Your task to perform on an android device: clear history in the chrome app Image 0: 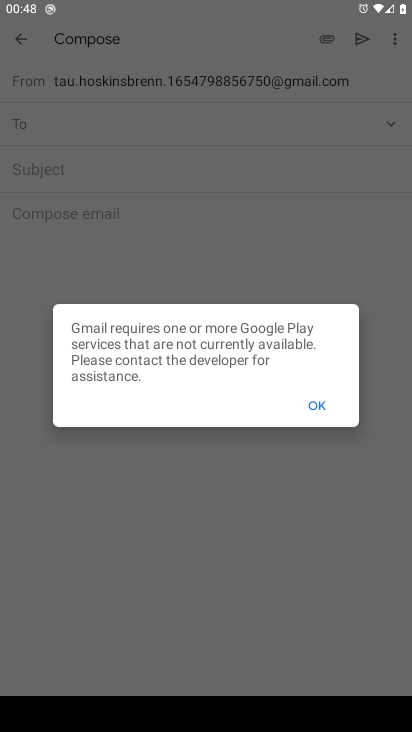
Step 0: press home button
Your task to perform on an android device: clear history in the chrome app Image 1: 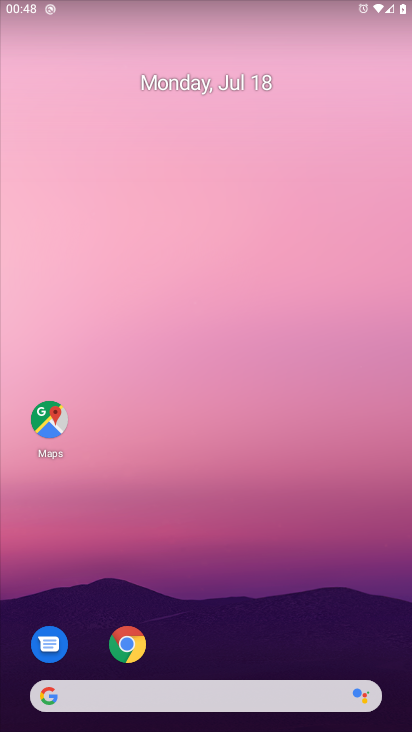
Step 1: click (139, 643)
Your task to perform on an android device: clear history in the chrome app Image 2: 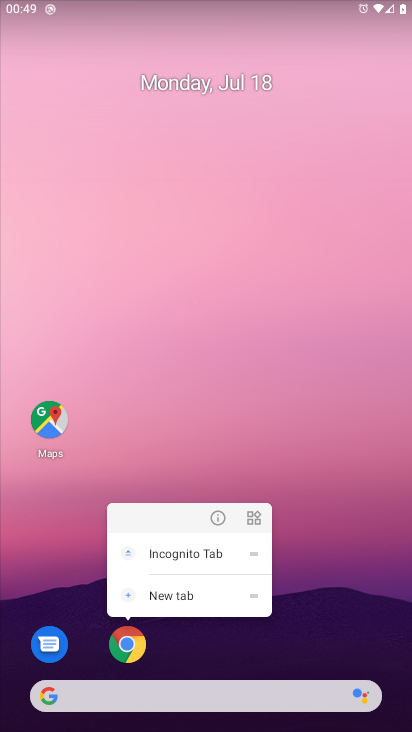
Step 2: click (130, 638)
Your task to perform on an android device: clear history in the chrome app Image 3: 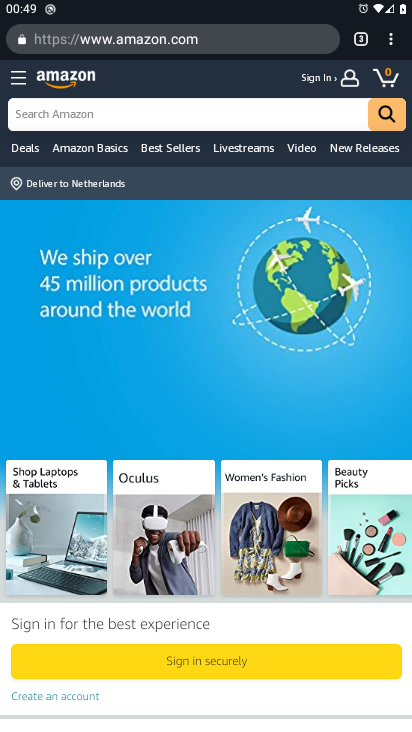
Step 3: drag from (391, 40) to (233, 227)
Your task to perform on an android device: clear history in the chrome app Image 4: 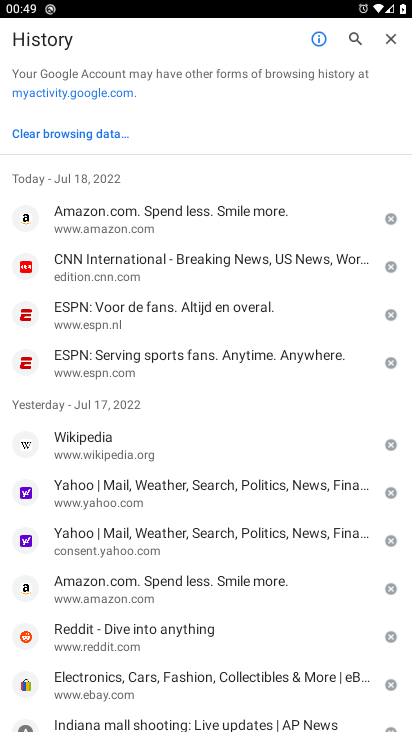
Step 4: click (64, 129)
Your task to perform on an android device: clear history in the chrome app Image 5: 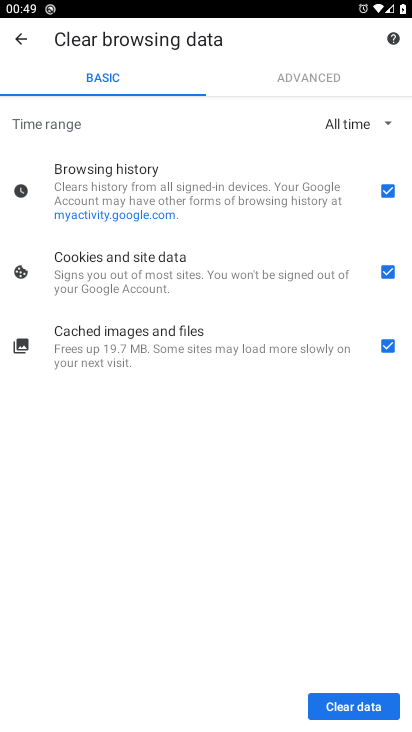
Step 5: click (385, 270)
Your task to perform on an android device: clear history in the chrome app Image 6: 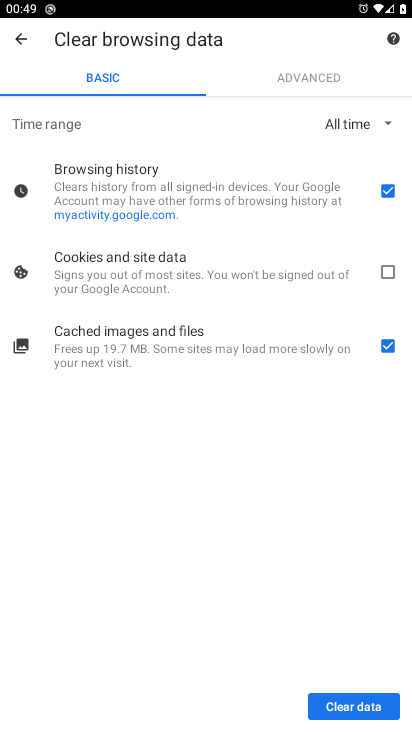
Step 6: click (389, 343)
Your task to perform on an android device: clear history in the chrome app Image 7: 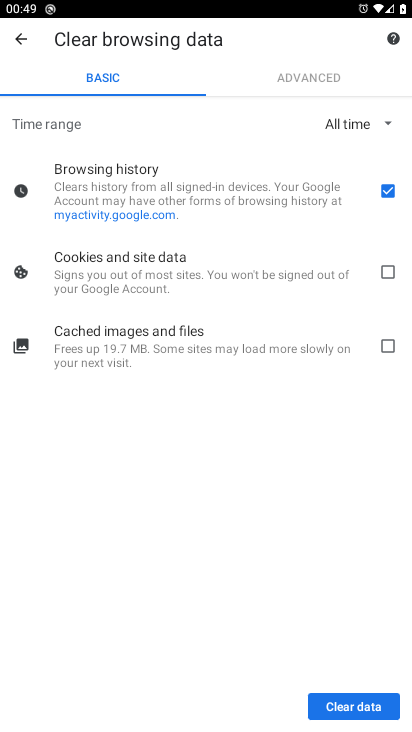
Step 7: click (375, 710)
Your task to perform on an android device: clear history in the chrome app Image 8: 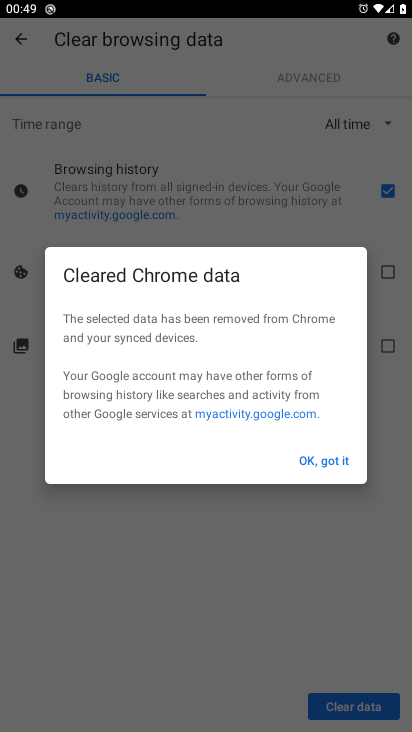
Step 8: click (329, 459)
Your task to perform on an android device: clear history in the chrome app Image 9: 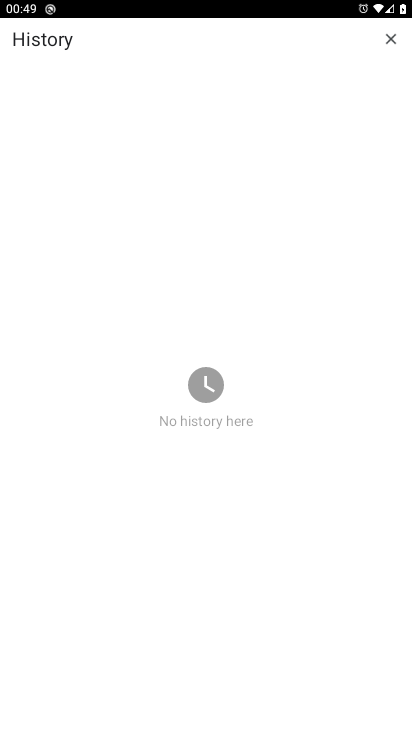
Step 9: task complete